Your task to perform on an android device: open wifi settings Image 0: 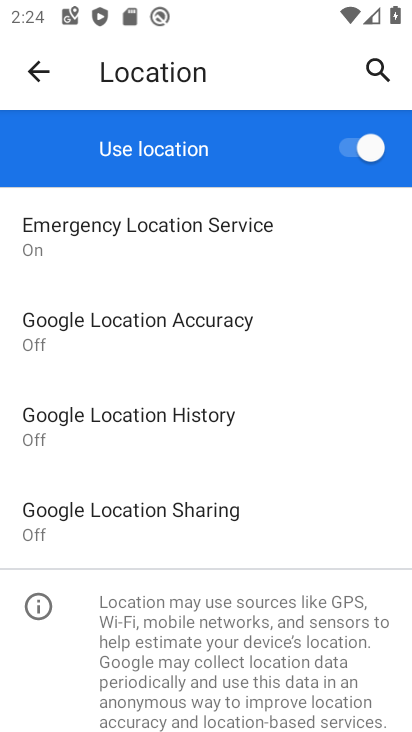
Step 0: press home button
Your task to perform on an android device: open wifi settings Image 1: 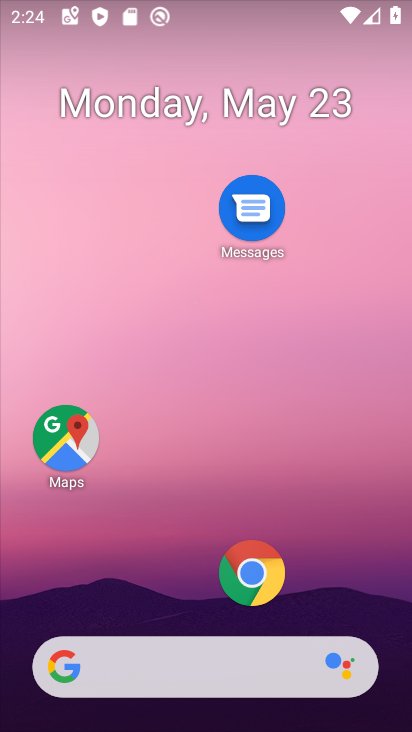
Step 1: drag from (369, 631) to (399, 68)
Your task to perform on an android device: open wifi settings Image 2: 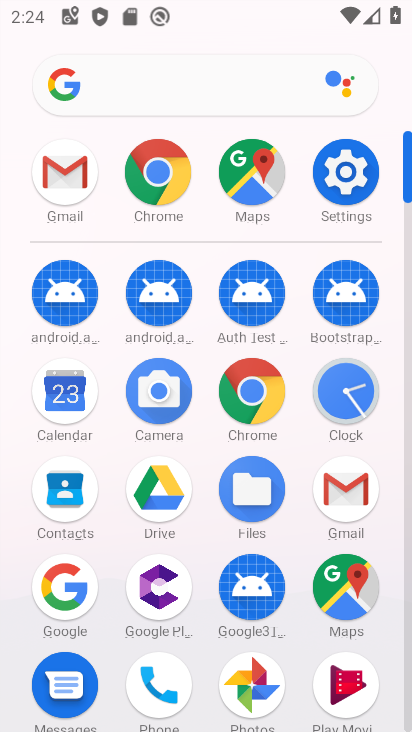
Step 2: click (356, 155)
Your task to perform on an android device: open wifi settings Image 3: 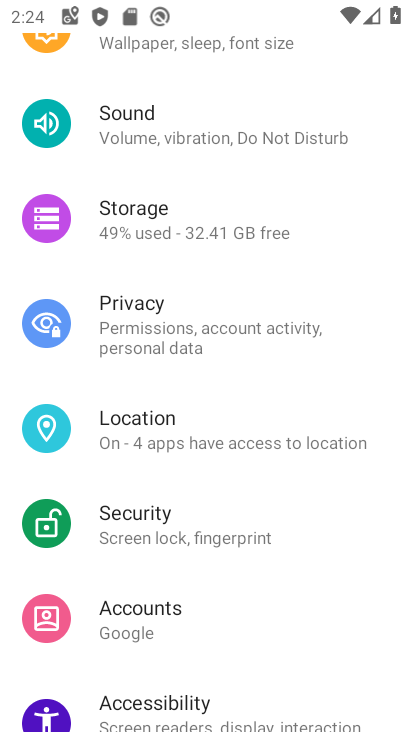
Step 3: drag from (297, 195) to (300, 696)
Your task to perform on an android device: open wifi settings Image 4: 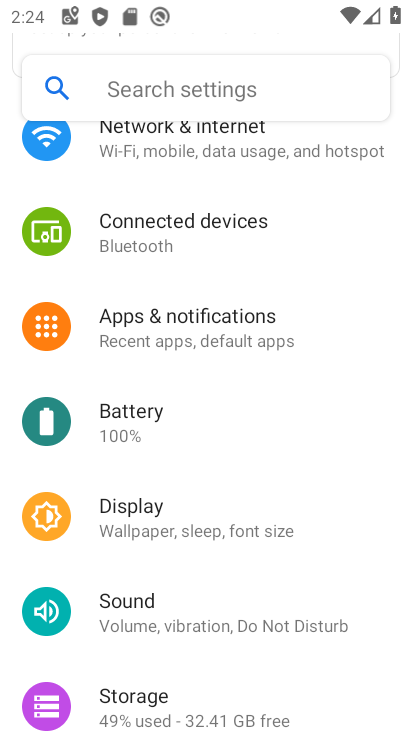
Step 4: drag from (185, 186) to (264, 700)
Your task to perform on an android device: open wifi settings Image 5: 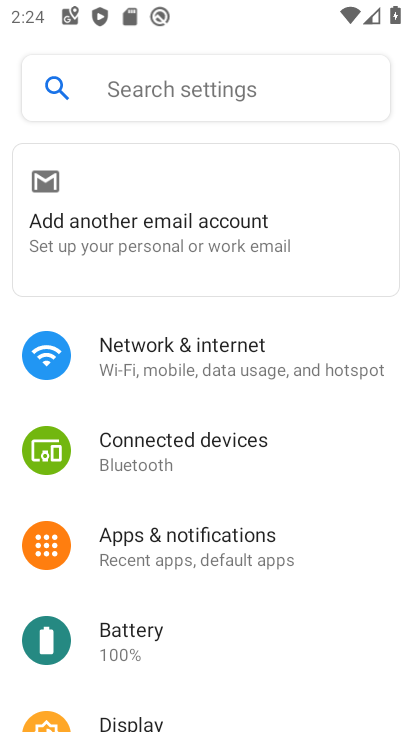
Step 5: click (238, 375)
Your task to perform on an android device: open wifi settings Image 6: 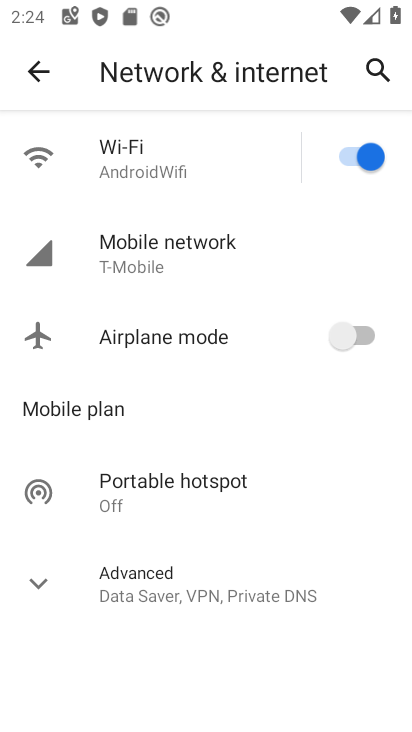
Step 6: click (157, 164)
Your task to perform on an android device: open wifi settings Image 7: 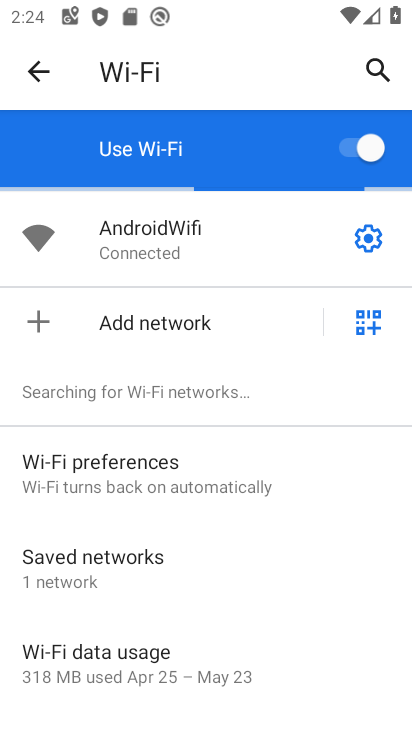
Step 7: task complete